Your task to perform on an android device: Go to calendar. Show me events next week Image 0: 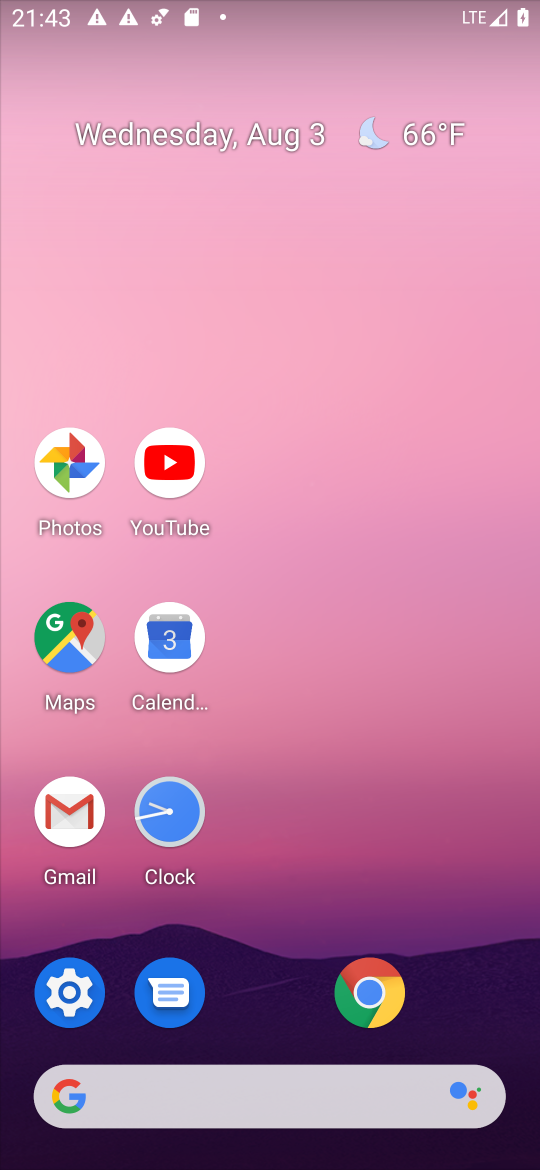
Step 0: click (170, 634)
Your task to perform on an android device: Go to calendar. Show me events next week Image 1: 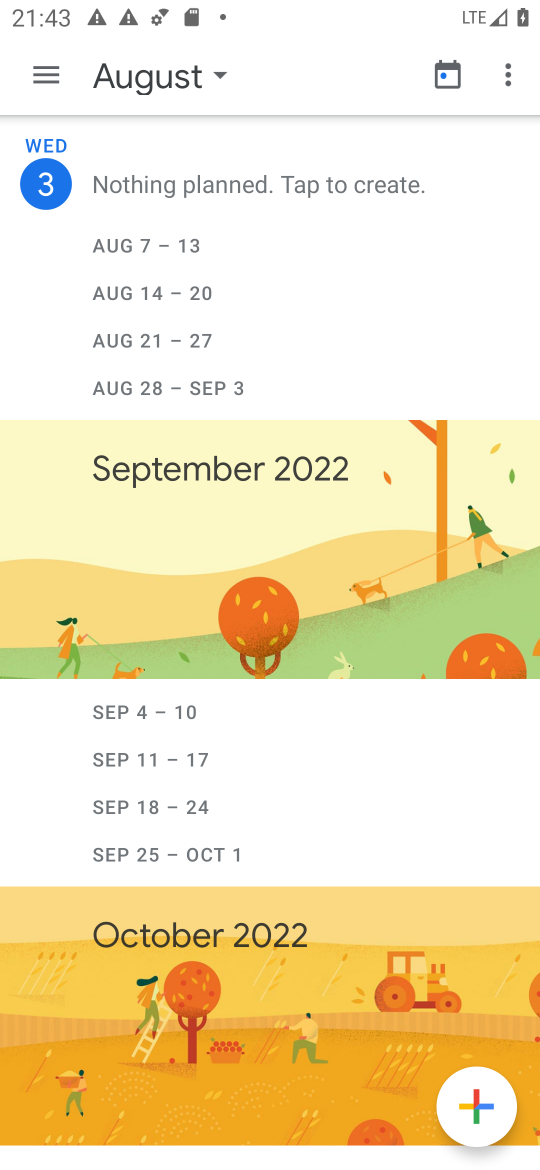
Step 1: click (36, 68)
Your task to perform on an android device: Go to calendar. Show me events next week Image 2: 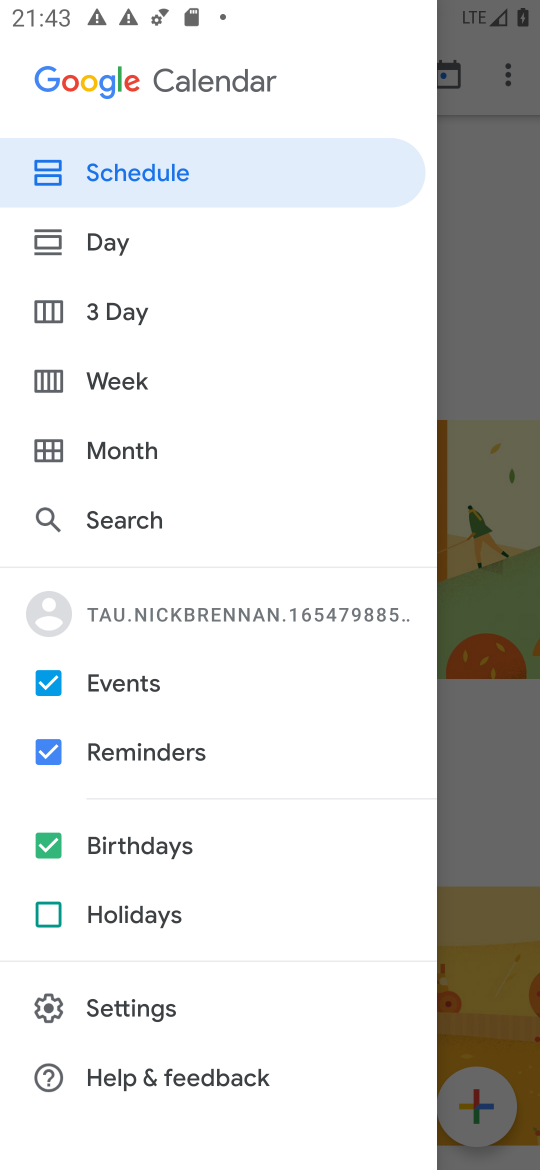
Step 2: click (113, 371)
Your task to perform on an android device: Go to calendar. Show me events next week Image 3: 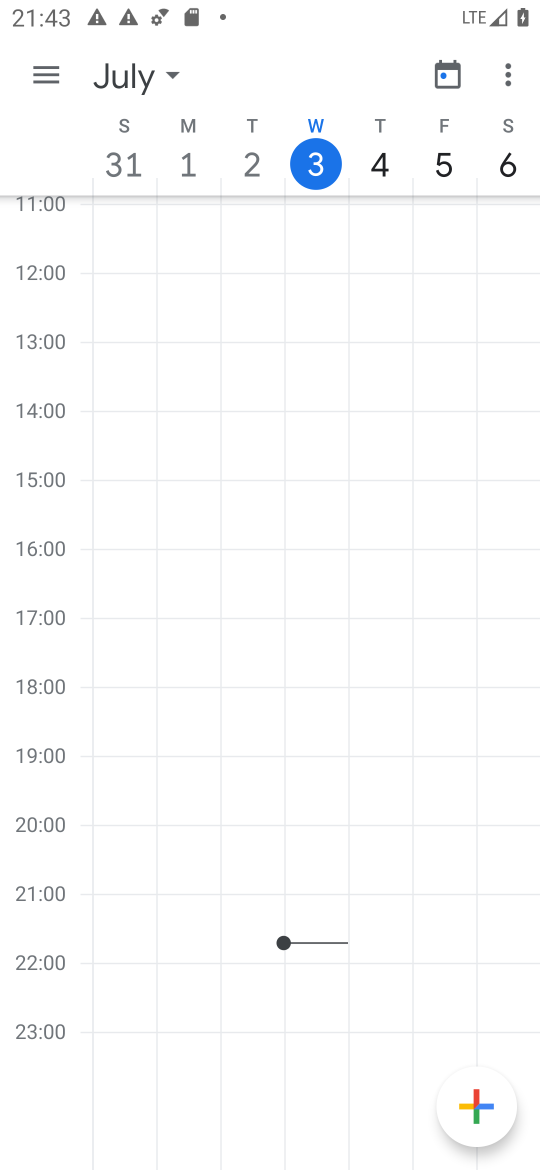
Step 3: click (161, 71)
Your task to perform on an android device: Go to calendar. Show me events next week Image 4: 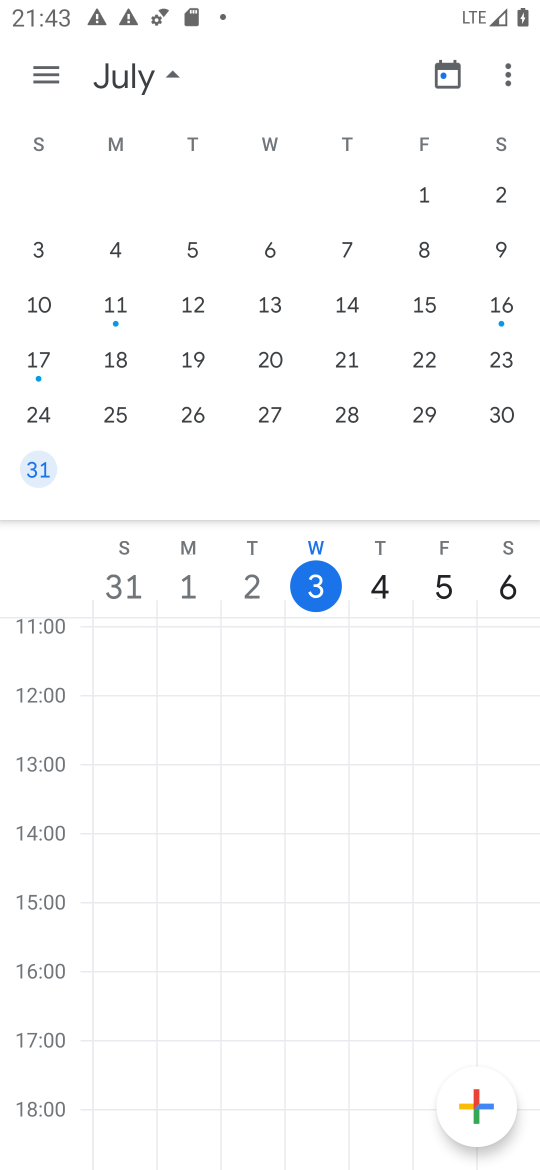
Step 4: drag from (462, 455) to (40, 419)
Your task to perform on an android device: Go to calendar. Show me events next week Image 5: 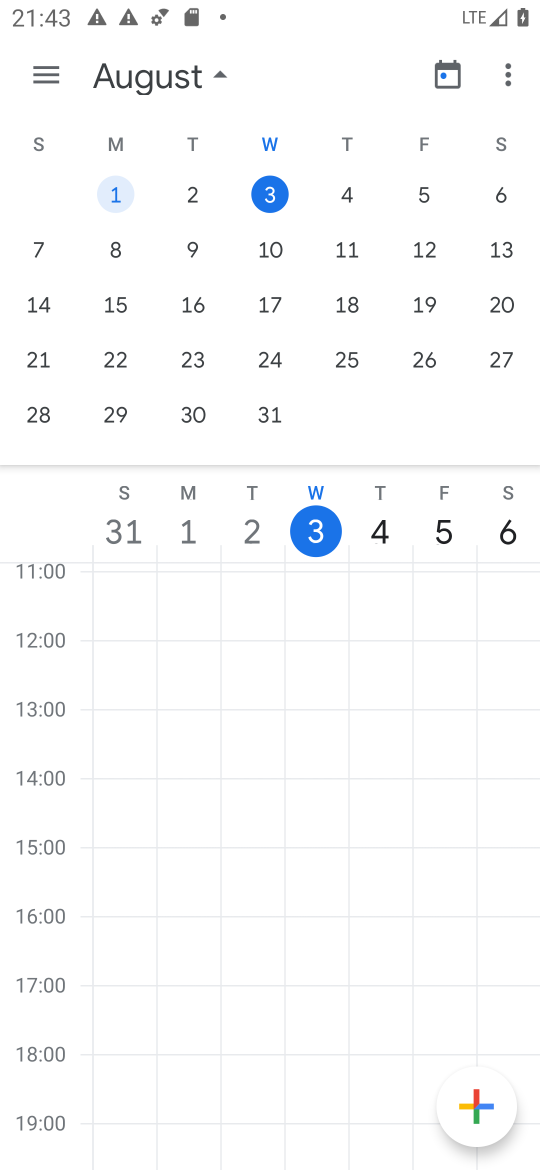
Step 5: click (278, 234)
Your task to perform on an android device: Go to calendar. Show me events next week Image 6: 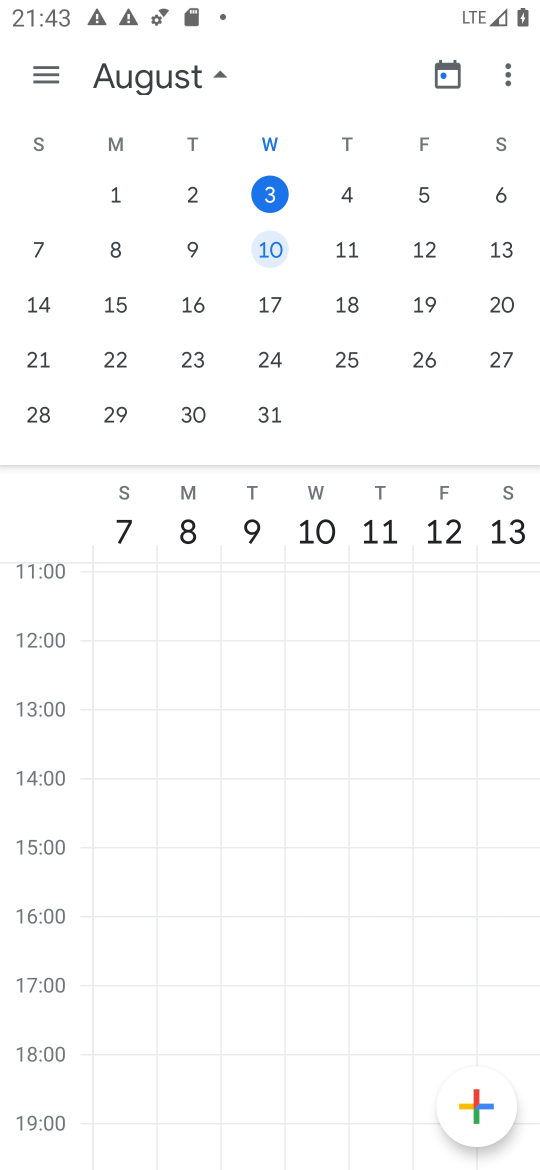
Step 6: task complete